Your task to perform on an android device: Go to accessibility settings Image 0: 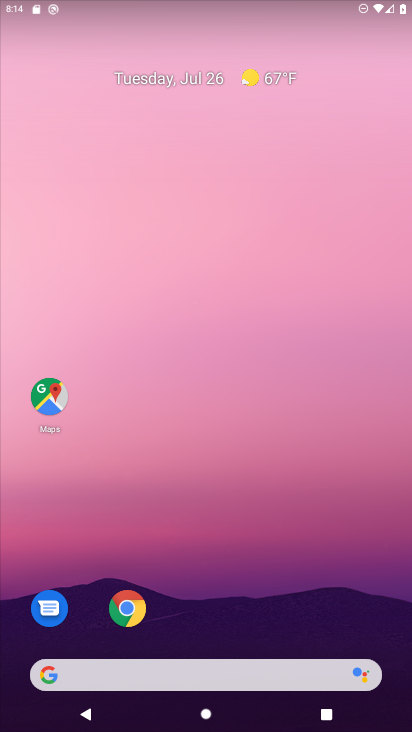
Step 0: drag from (182, 628) to (253, 109)
Your task to perform on an android device: Go to accessibility settings Image 1: 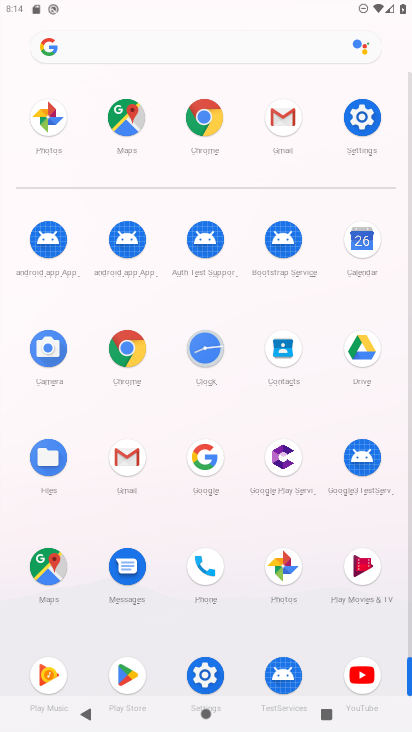
Step 1: click (190, 674)
Your task to perform on an android device: Go to accessibility settings Image 2: 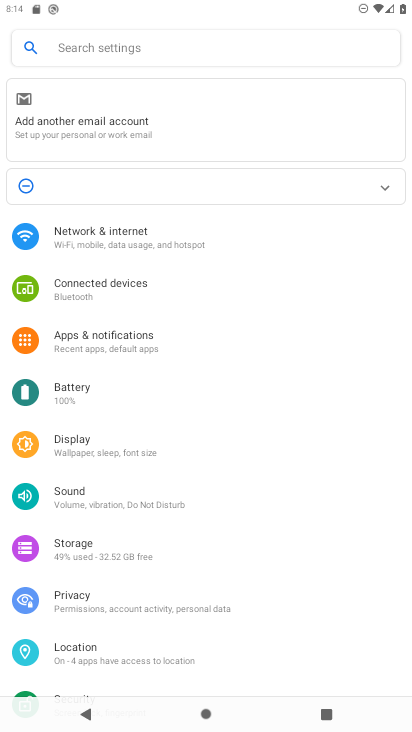
Step 2: drag from (128, 613) to (140, 429)
Your task to perform on an android device: Go to accessibility settings Image 3: 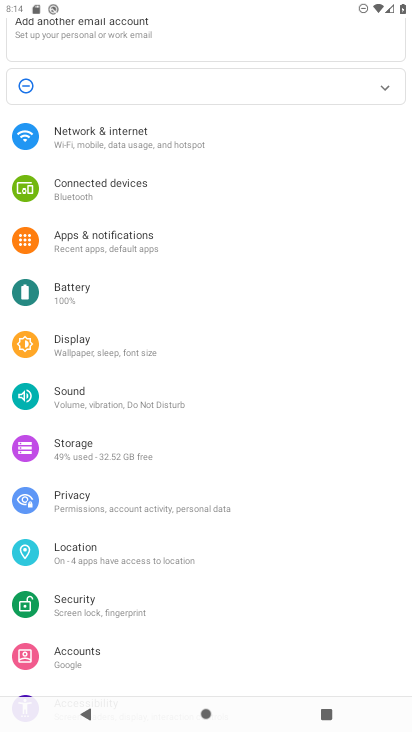
Step 3: drag from (117, 627) to (144, 330)
Your task to perform on an android device: Go to accessibility settings Image 4: 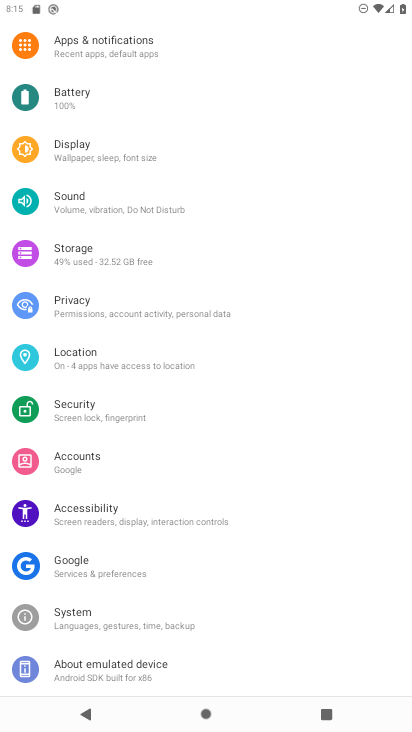
Step 4: click (105, 510)
Your task to perform on an android device: Go to accessibility settings Image 5: 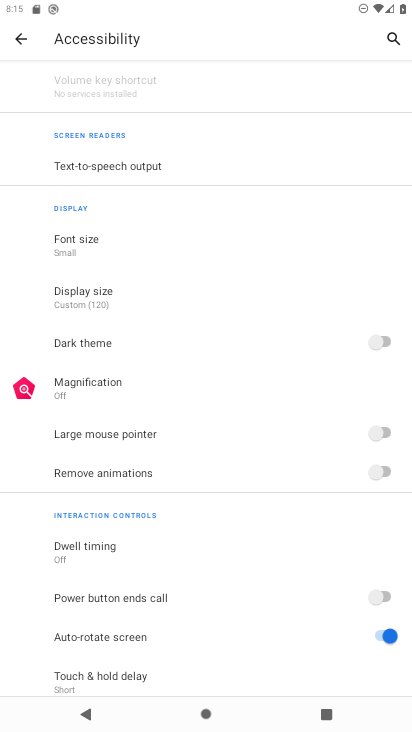
Step 5: task complete